Your task to perform on an android device: Go to network settings Image 0: 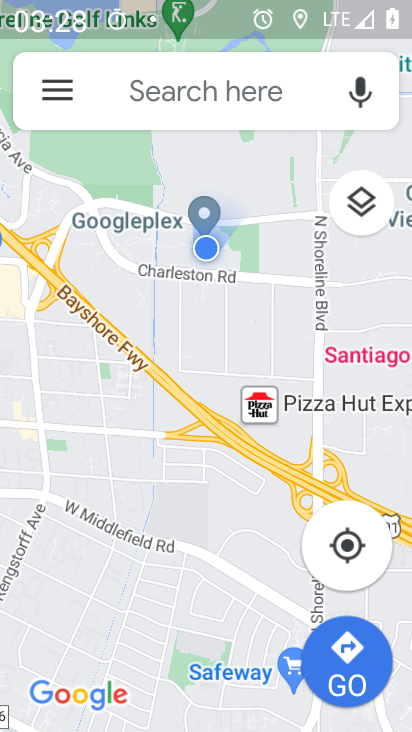
Step 0: press back button
Your task to perform on an android device: Go to network settings Image 1: 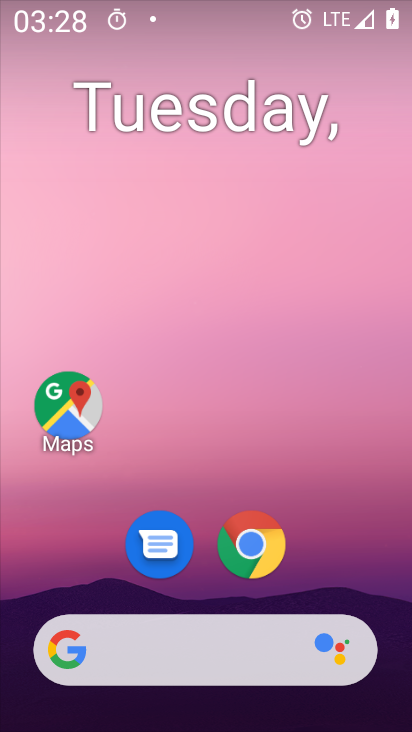
Step 1: drag from (341, 575) to (271, 73)
Your task to perform on an android device: Go to network settings Image 2: 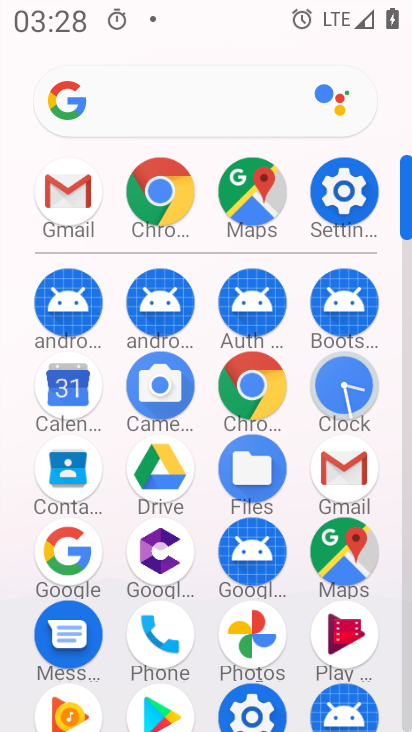
Step 2: drag from (8, 567) to (17, 227)
Your task to perform on an android device: Go to network settings Image 3: 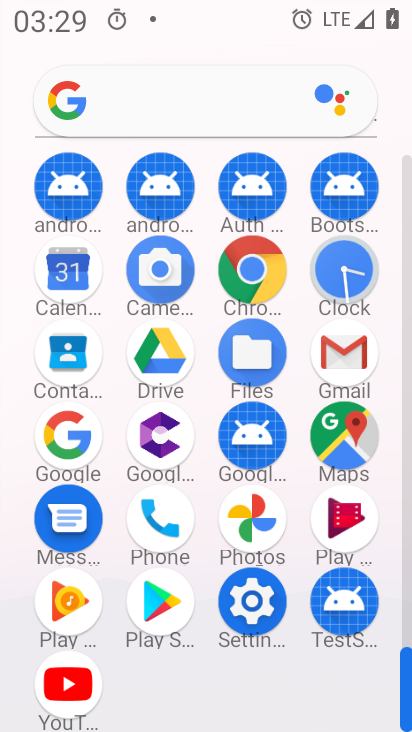
Step 3: click (251, 592)
Your task to perform on an android device: Go to network settings Image 4: 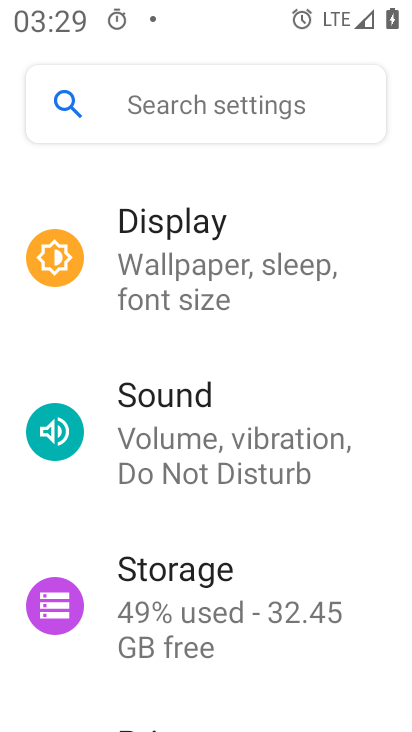
Step 4: drag from (270, 263) to (282, 650)
Your task to perform on an android device: Go to network settings Image 5: 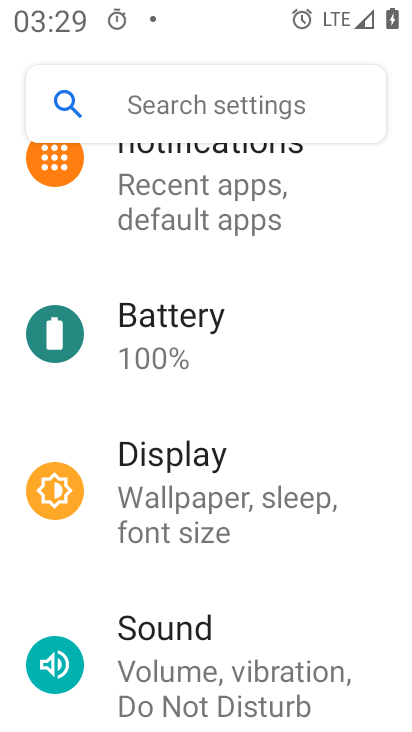
Step 5: drag from (311, 253) to (292, 661)
Your task to perform on an android device: Go to network settings Image 6: 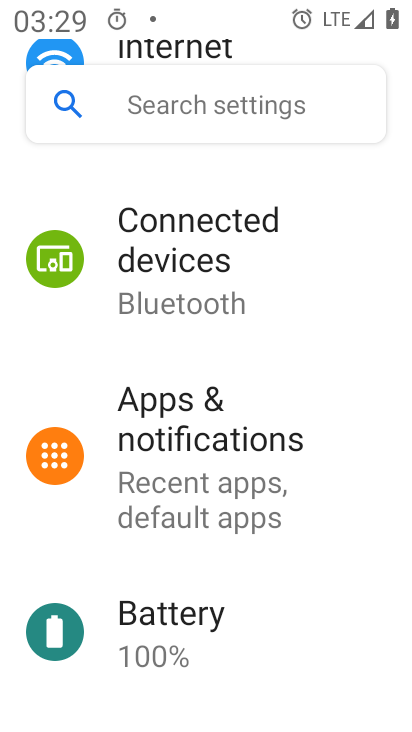
Step 6: drag from (293, 349) to (295, 690)
Your task to perform on an android device: Go to network settings Image 7: 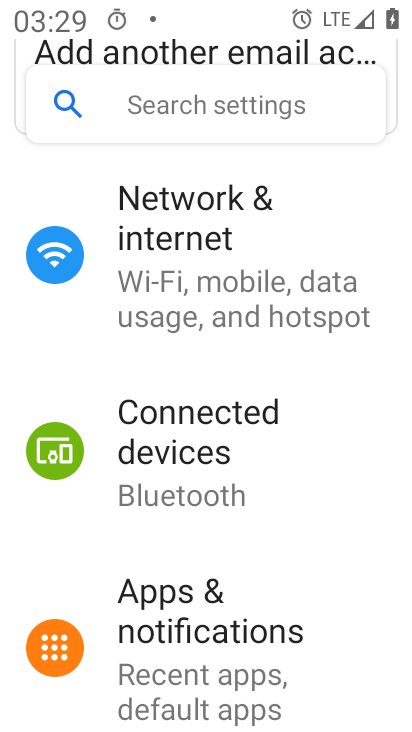
Step 7: drag from (294, 316) to (294, 689)
Your task to perform on an android device: Go to network settings Image 8: 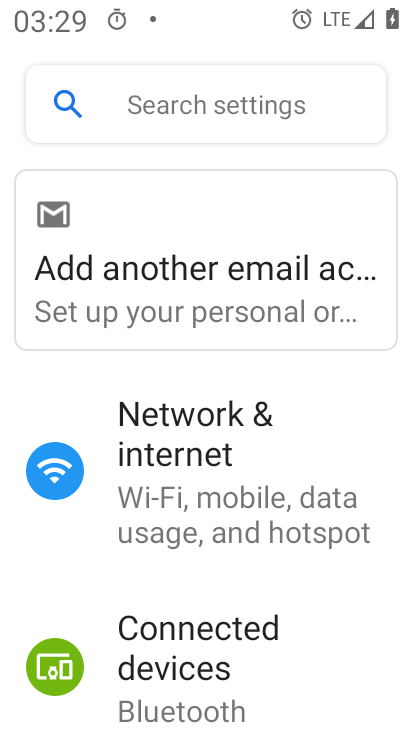
Step 8: click (266, 468)
Your task to perform on an android device: Go to network settings Image 9: 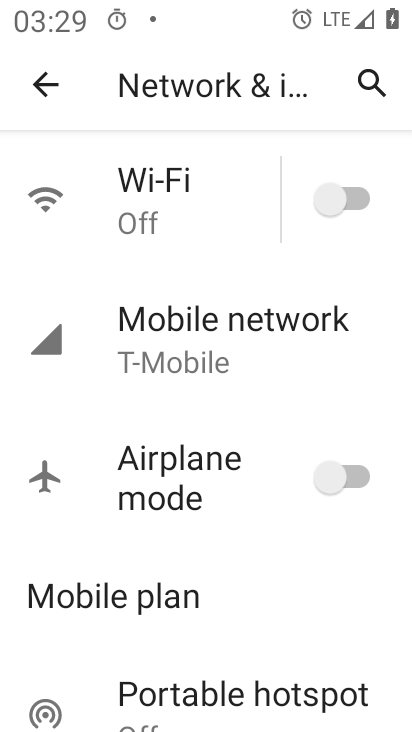
Step 9: drag from (225, 542) to (262, 161)
Your task to perform on an android device: Go to network settings Image 10: 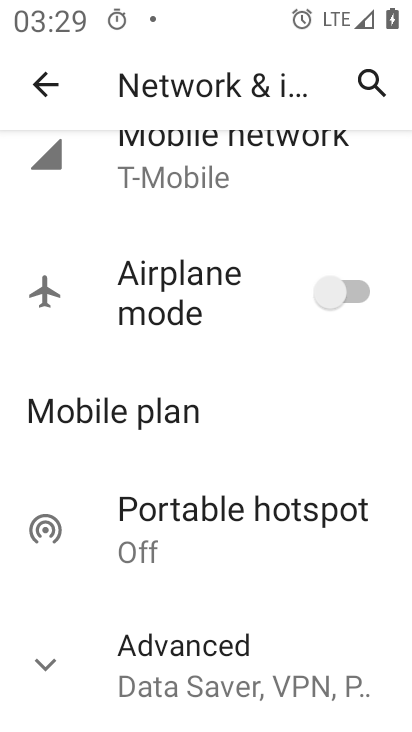
Step 10: click (35, 658)
Your task to perform on an android device: Go to network settings Image 11: 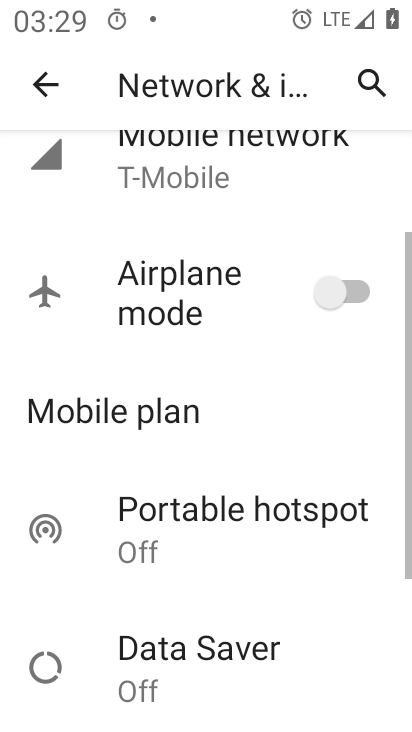
Step 11: task complete